Your task to perform on an android device: Go to settings Image 0: 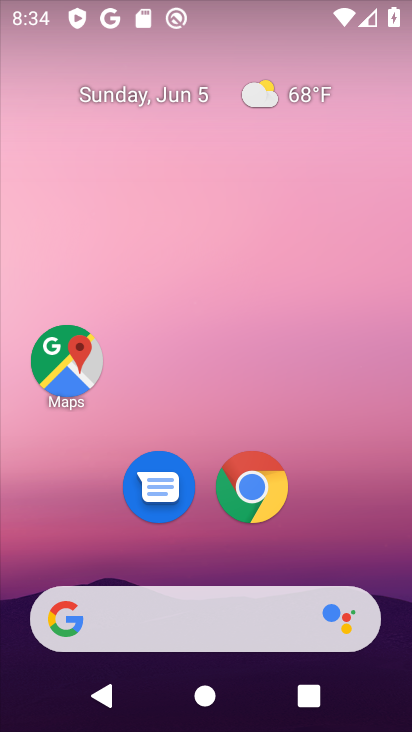
Step 0: drag from (183, 569) to (285, 72)
Your task to perform on an android device: Go to settings Image 1: 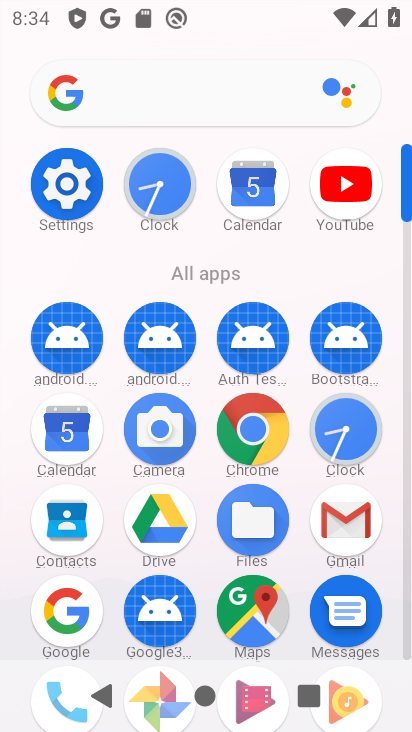
Step 1: click (70, 182)
Your task to perform on an android device: Go to settings Image 2: 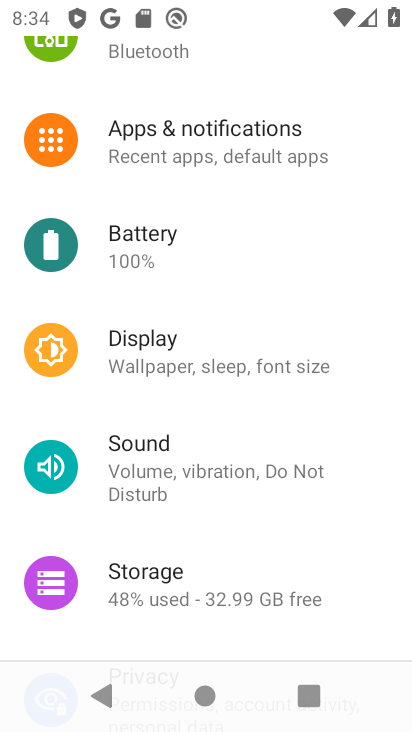
Step 2: task complete